Your task to perform on an android device: Show the shopping cart on target. Add usb-c to usb-a to the cart on target Image 0: 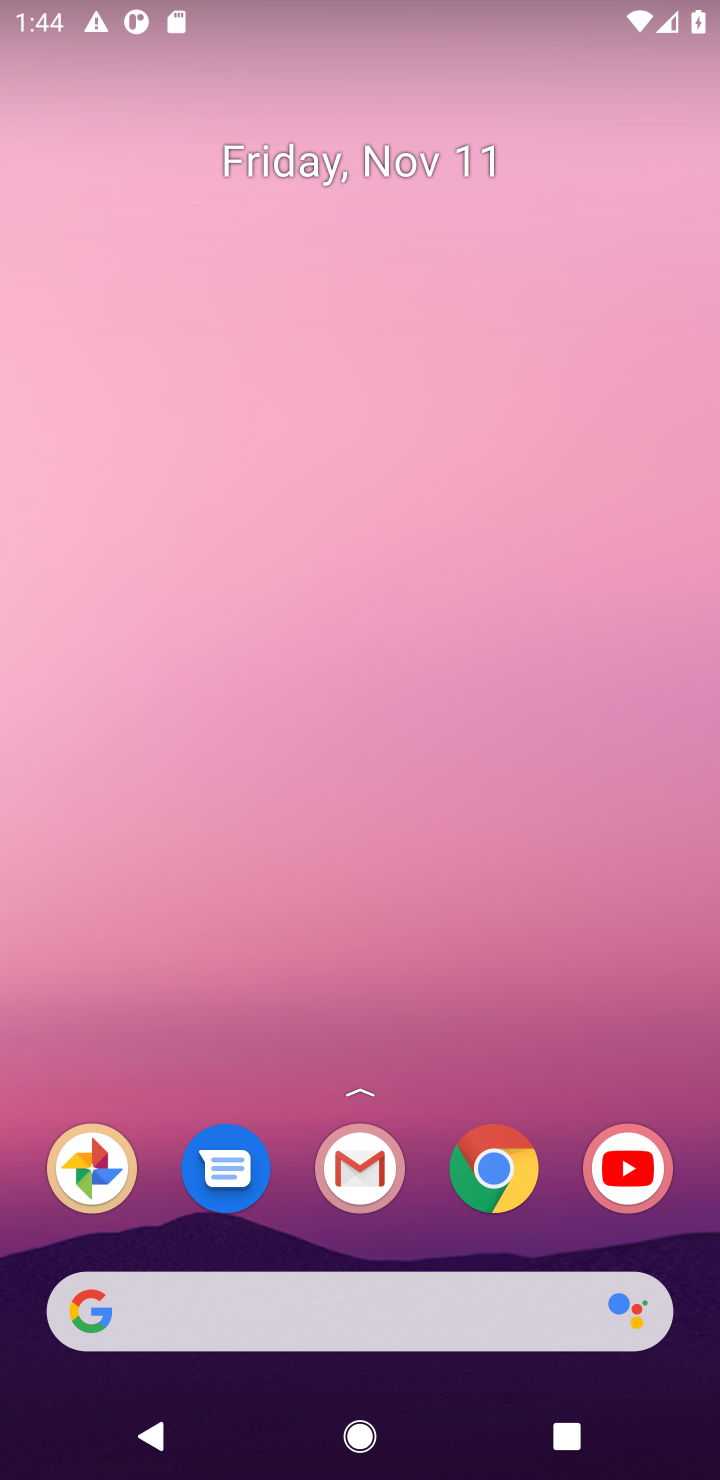
Step 0: click (486, 1165)
Your task to perform on an android device: Show the shopping cart on target. Add usb-c to usb-a to the cart on target Image 1: 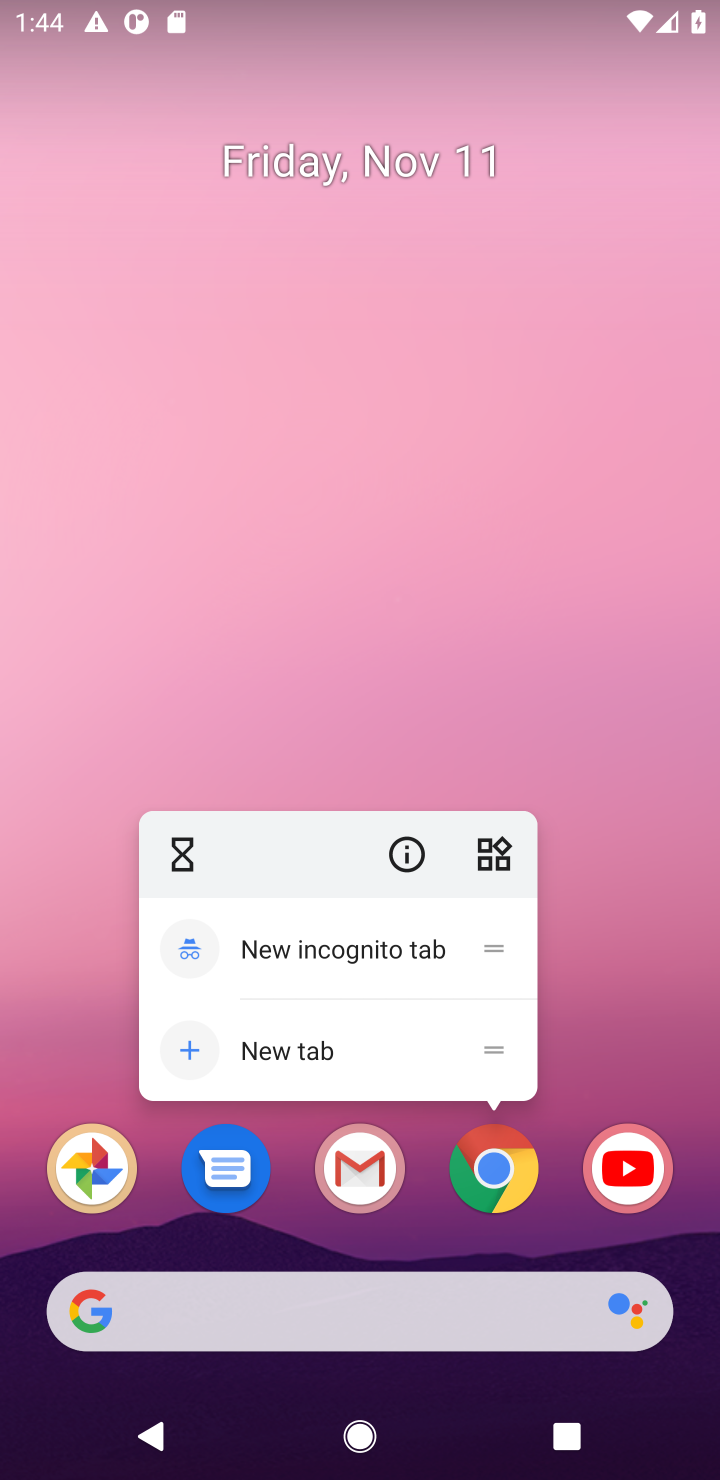
Step 1: click (488, 1168)
Your task to perform on an android device: Show the shopping cart on target. Add usb-c to usb-a to the cart on target Image 2: 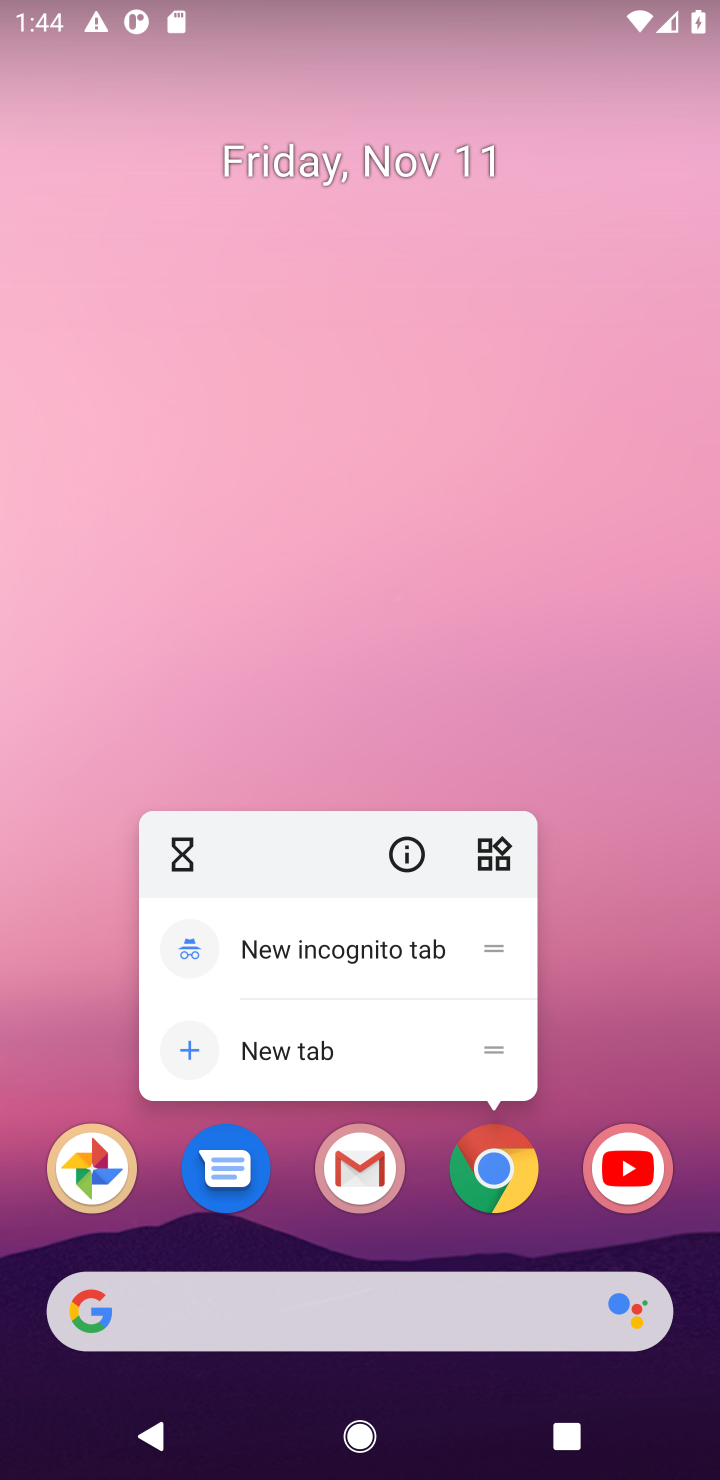
Step 2: click (501, 1174)
Your task to perform on an android device: Show the shopping cart on target. Add usb-c to usb-a to the cart on target Image 3: 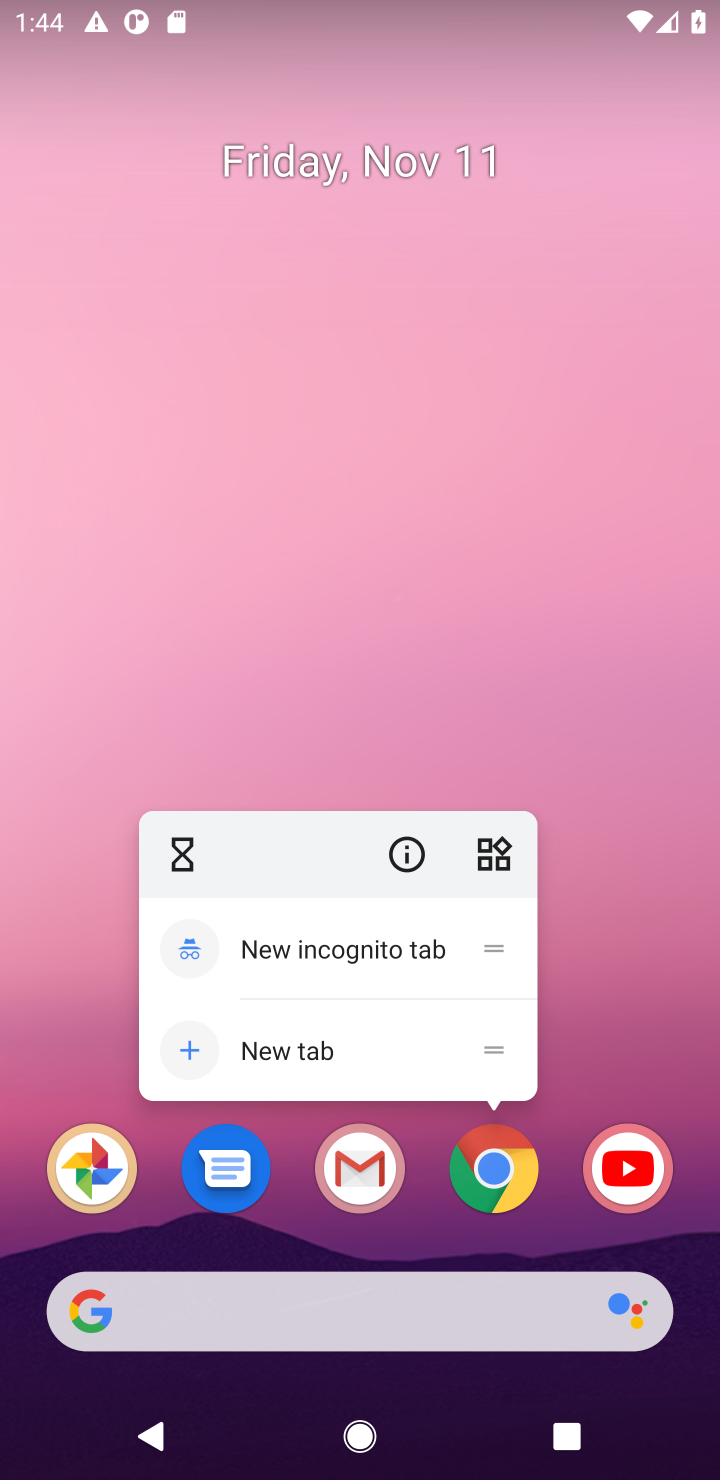
Step 3: click (501, 1174)
Your task to perform on an android device: Show the shopping cart on target. Add usb-c to usb-a to the cart on target Image 4: 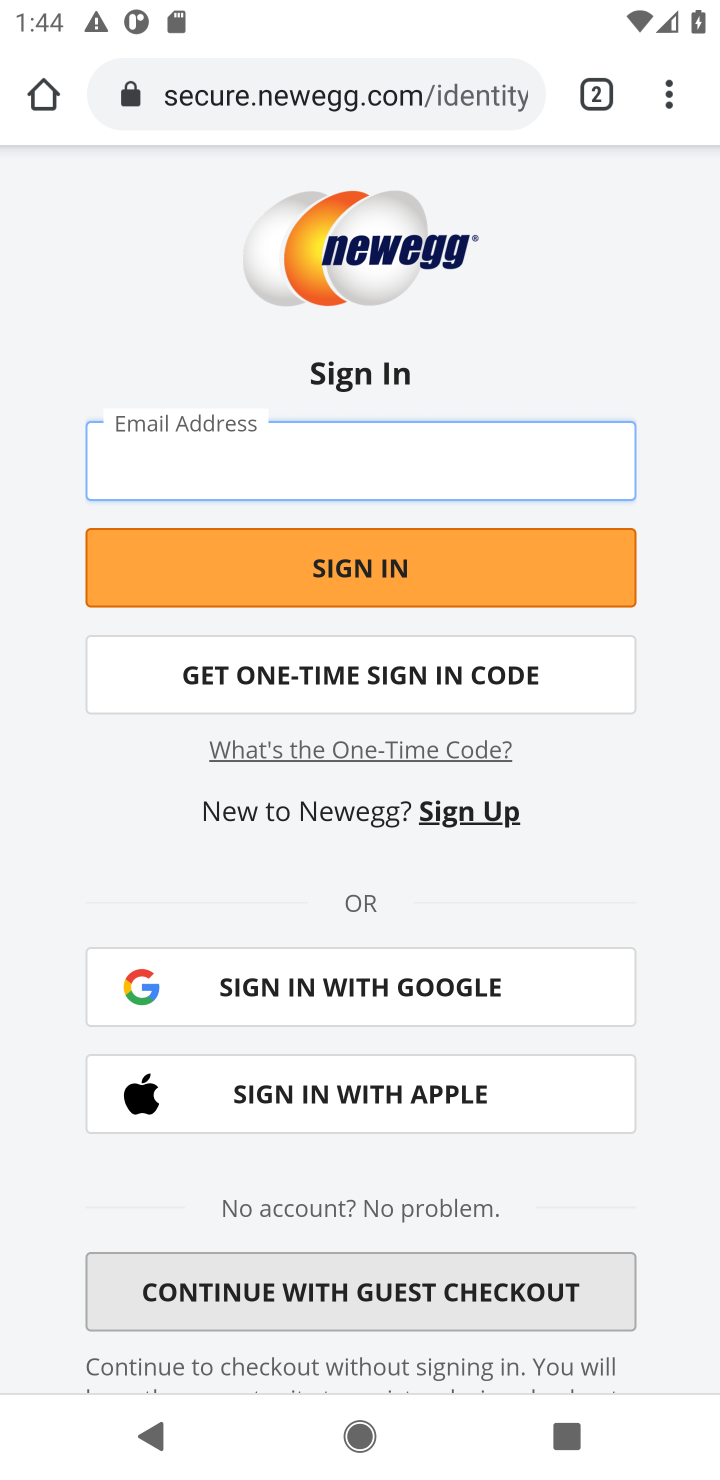
Step 4: click (303, 95)
Your task to perform on an android device: Show the shopping cart on target. Add usb-c to usb-a to the cart on target Image 5: 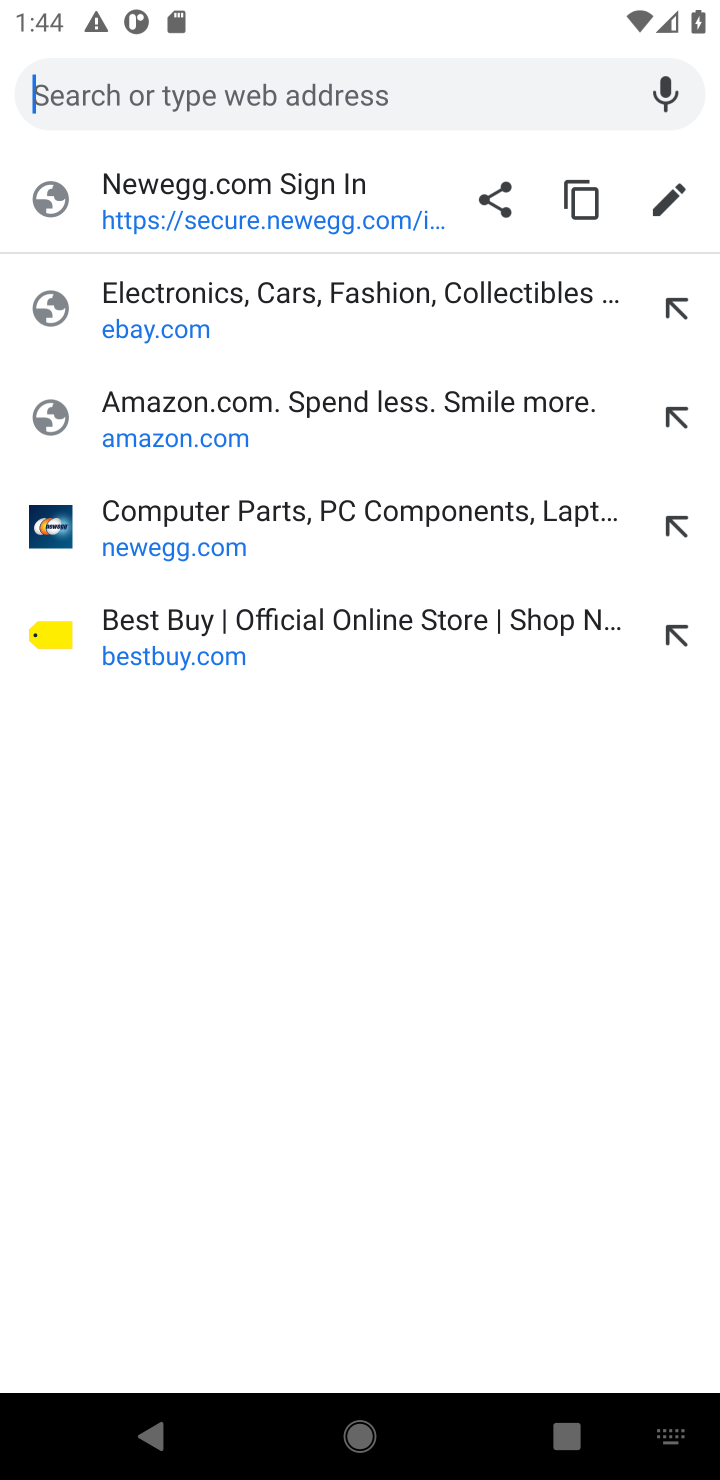
Step 5: type "target.com"
Your task to perform on an android device: Show the shopping cart on target. Add usb-c to usb-a to the cart on target Image 6: 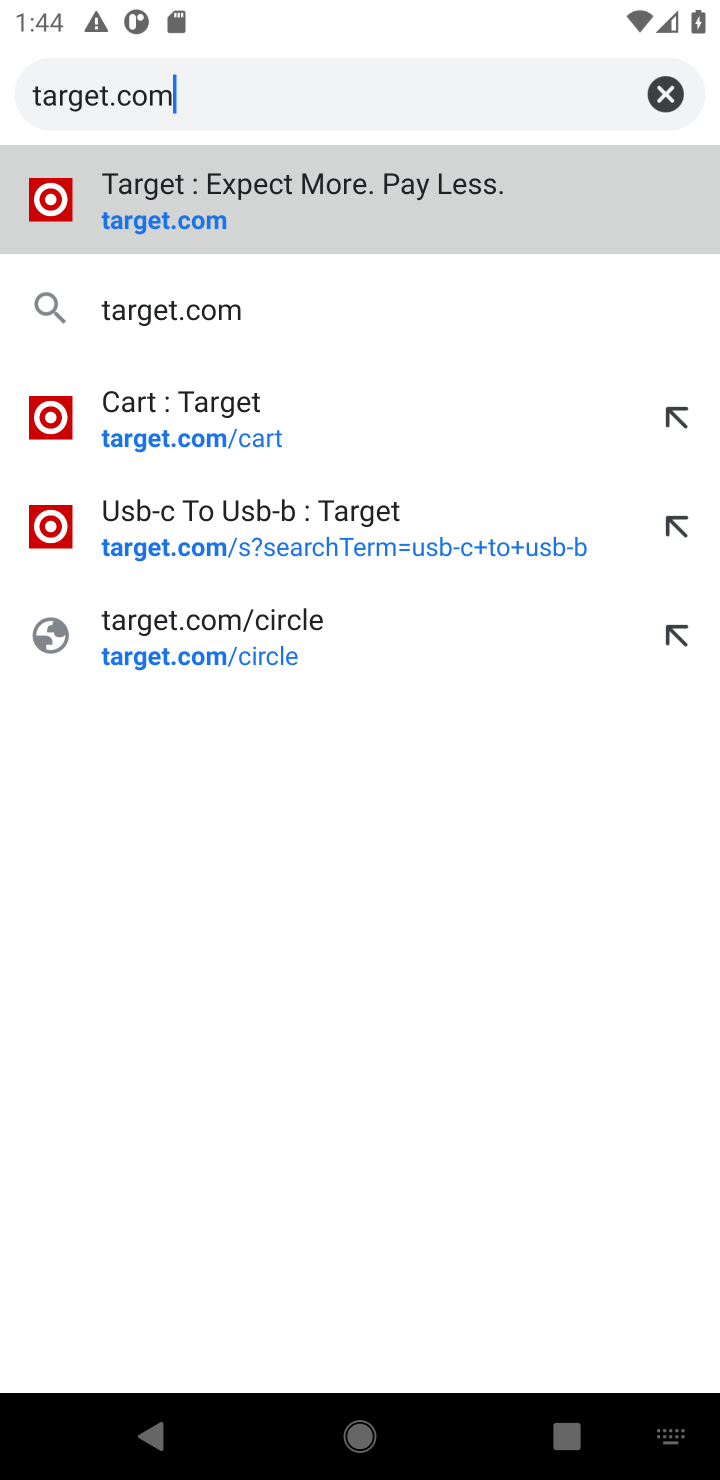
Step 6: click (132, 213)
Your task to perform on an android device: Show the shopping cart on target. Add usb-c to usb-a to the cart on target Image 7: 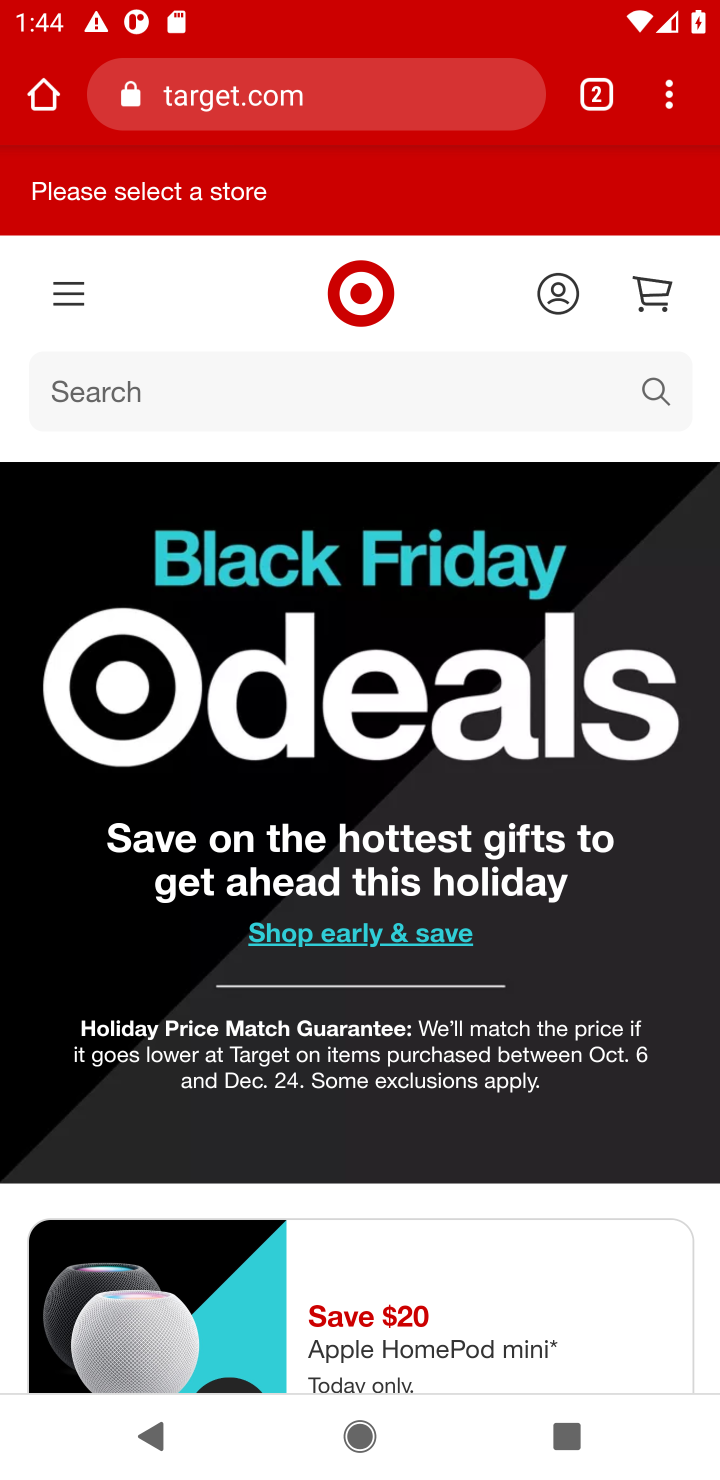
Step 7: click (661, 302)
Your task to perform on an android device: Show the shopping cart on target. Add usb-c to usb-a to the cart on target Image 8: 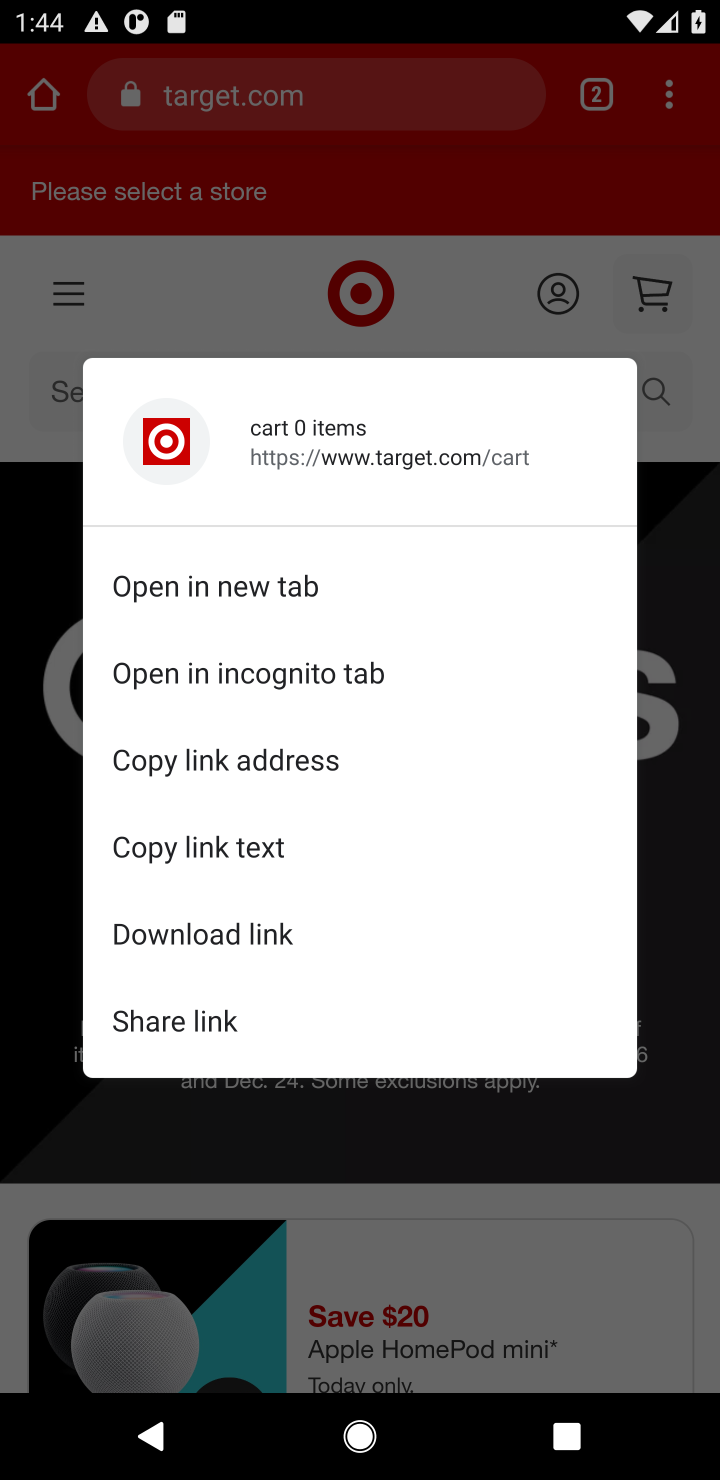
Step 8: click (661, 302)
Your task to perform on an android device: Show the shopping cart on target. Add usb-c to usb-a to the cart on target Image 9: 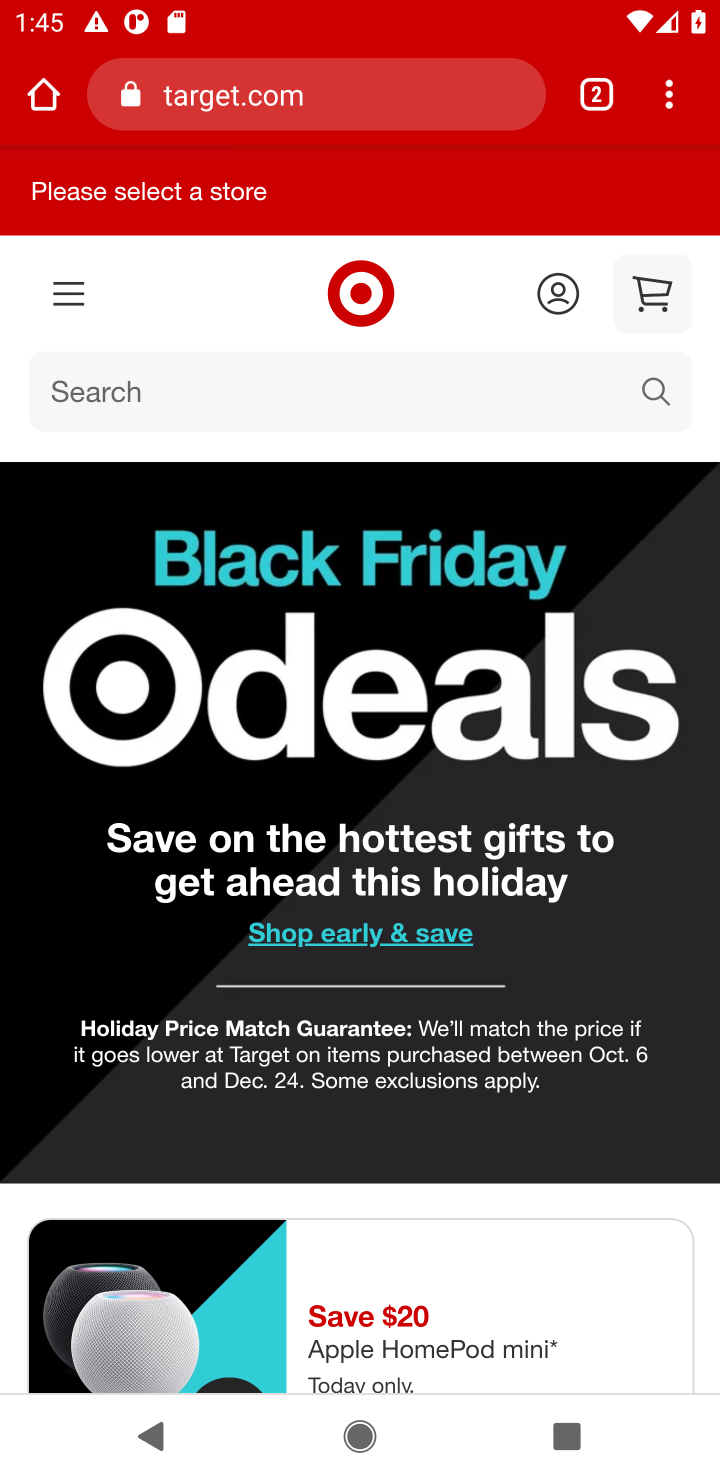
Step 9: click (661, 302)
Your task to perform on an android device: Show the shopping cart on target. Add usb-c to usb-a to the cart on target Image 10: 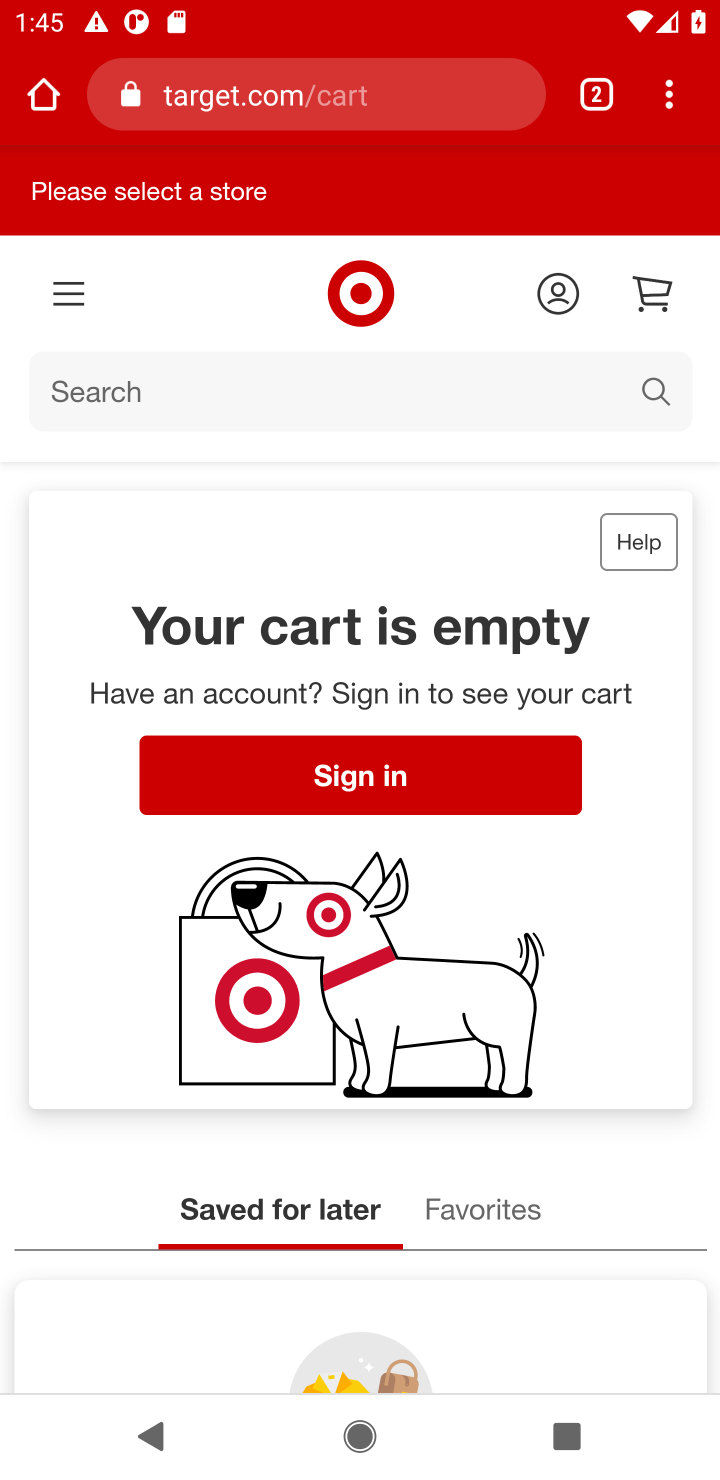
Step 10: click (659, 397)
Your task to perform on an android device: Show the shopping cart on target. Add usb-c to usb-a to the cart on target Image 11: 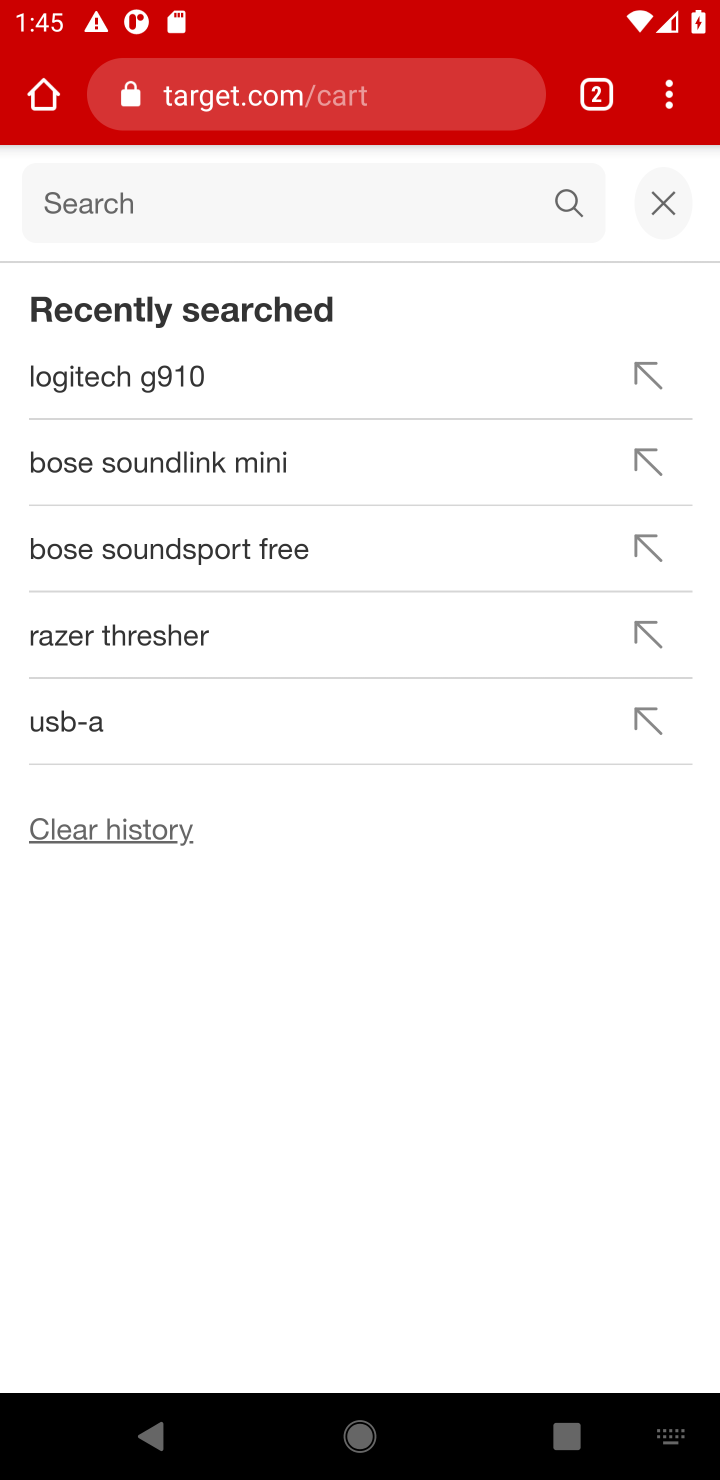
Step 11: type "usb-c to usb-a"
Your task to perform on an android device: Show the shopping cart on target. Add usb-c to usb-a to the cart on target Image 12: 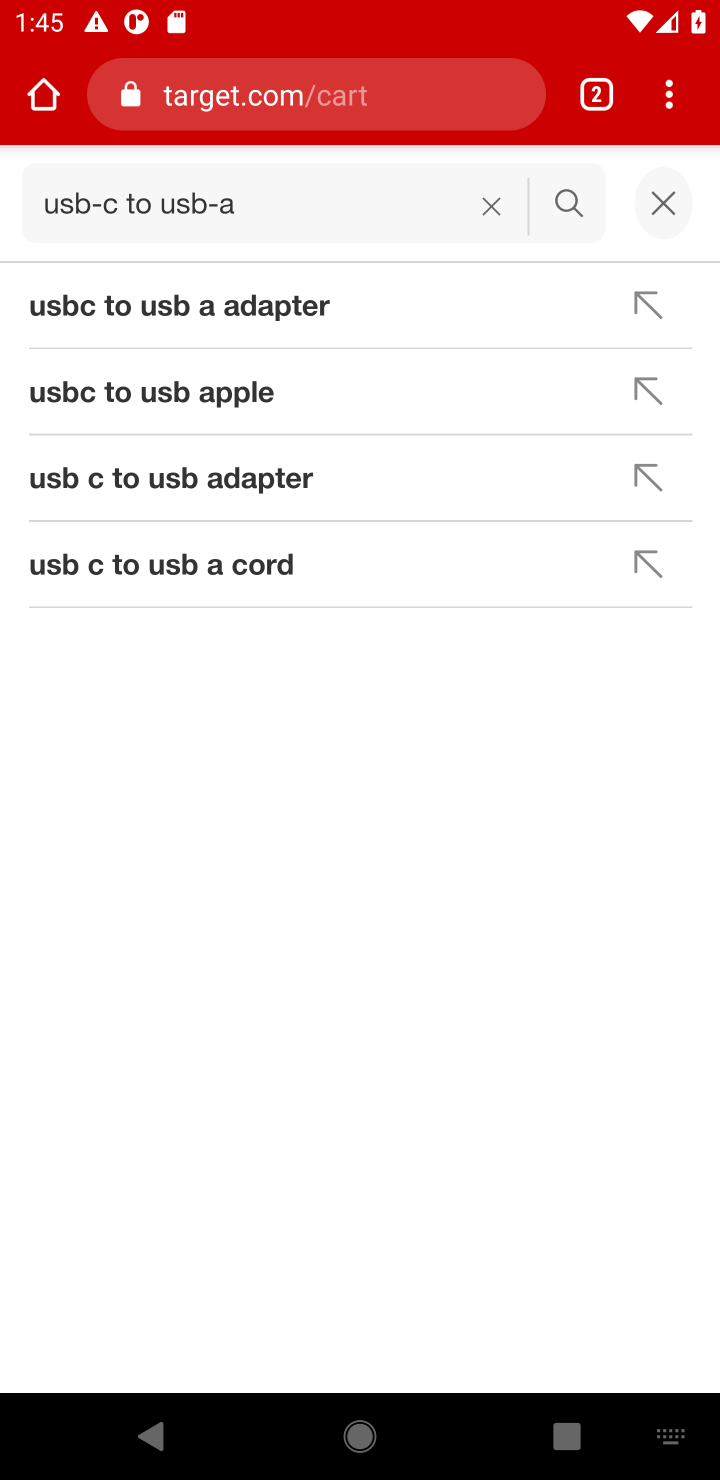
Step 12: click (570, 197)
Your task to perform on an android device: Show the shopping cart on target. Add usb-c to usb-a to the cart on target Image 13: 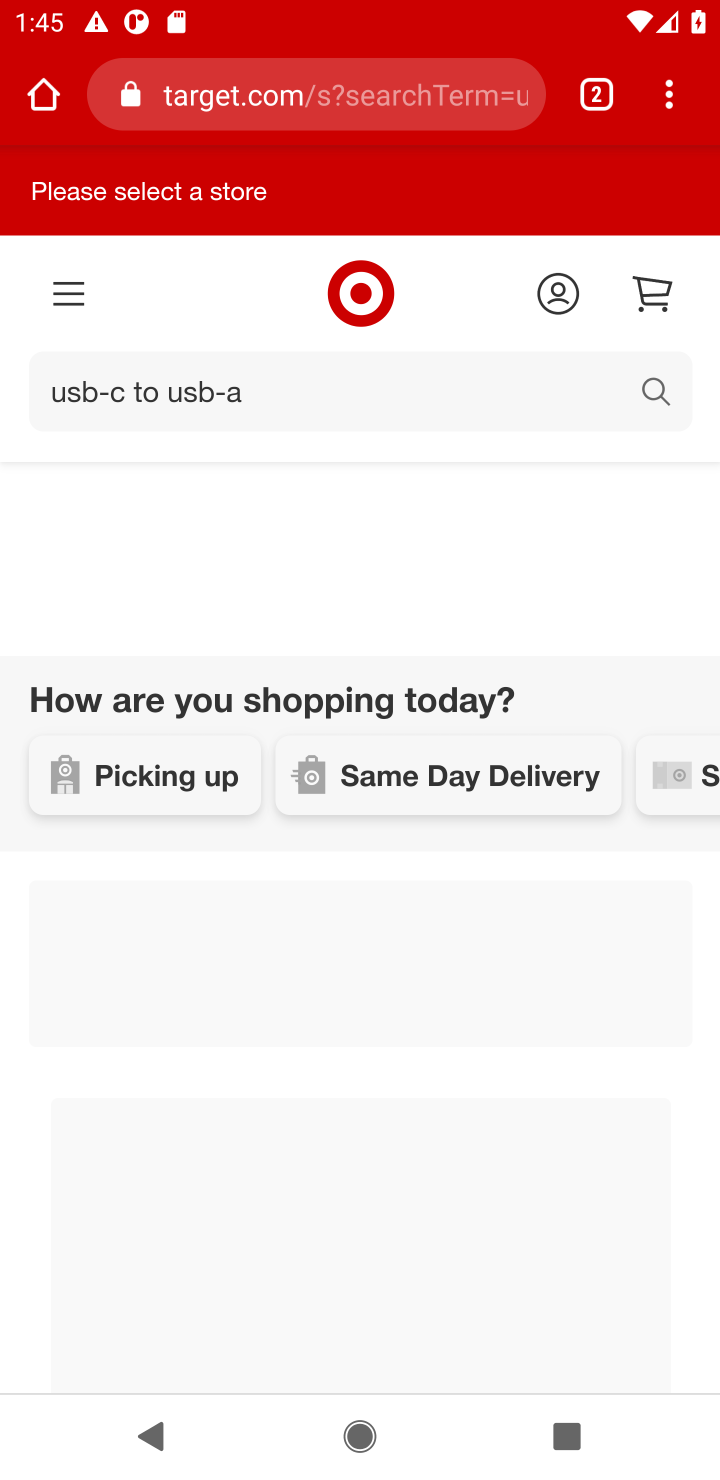
Step 13: drag from (308, 1021) to (341, 517)
Your task to perform on an android device: Show the shopping cart on target. Add usb-c to usb-a to the cart on target Image 14: 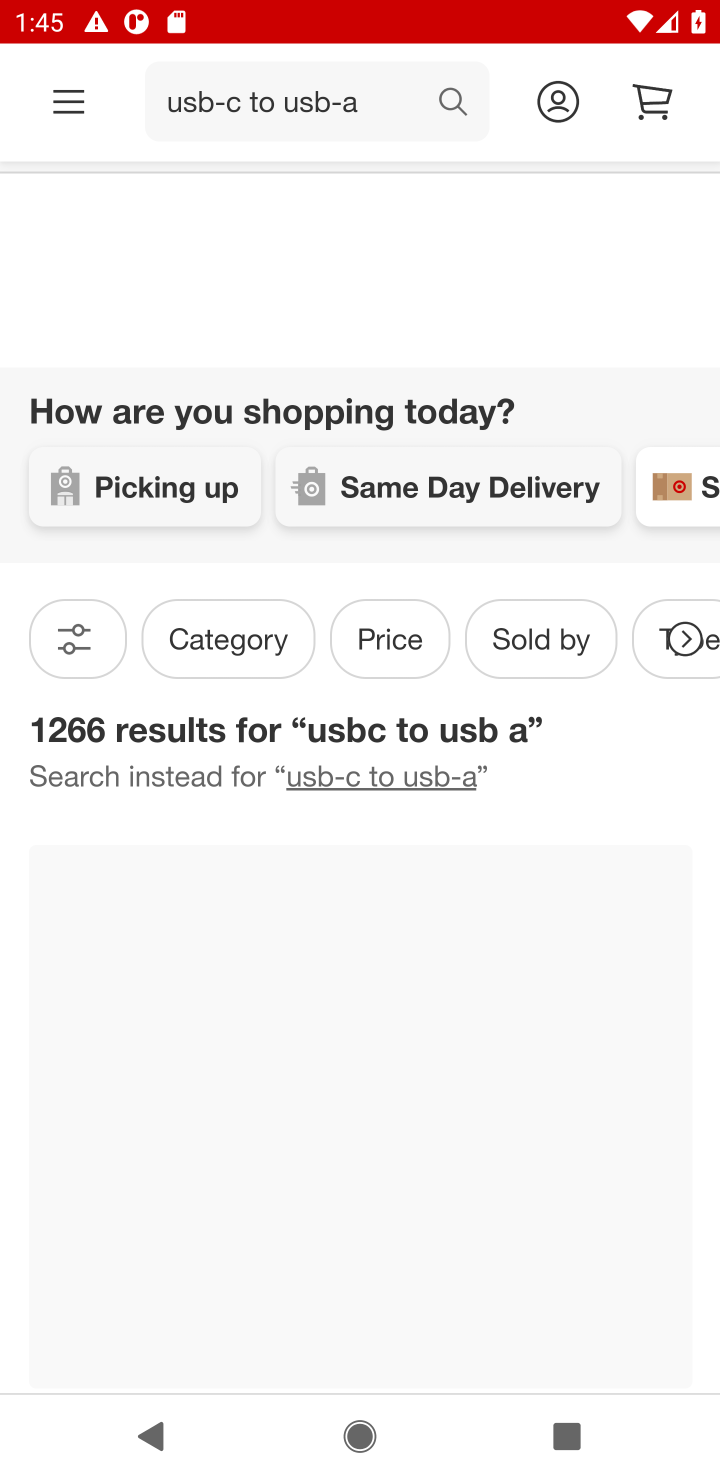
Step 14: drag from (405, 1069) to (346, 608)
Your task to perform on an android device: Show the shopping cart on target. Add usb-c to usb-a to the cart on target Image 15: 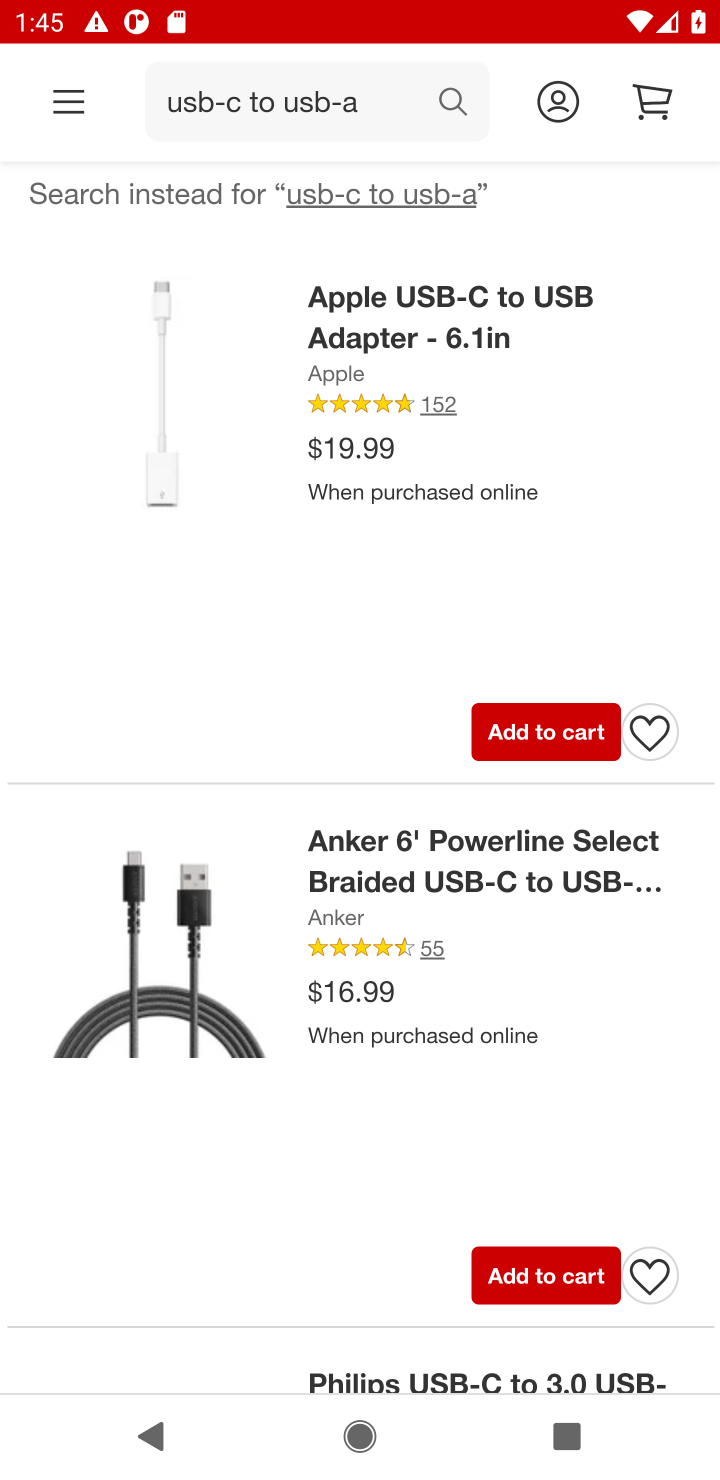
Step 15: click (173, 981)
Your task to perform on an android device: Show the shopping cart on target. Add usb-c to usb-a to the cart on target Image 16: 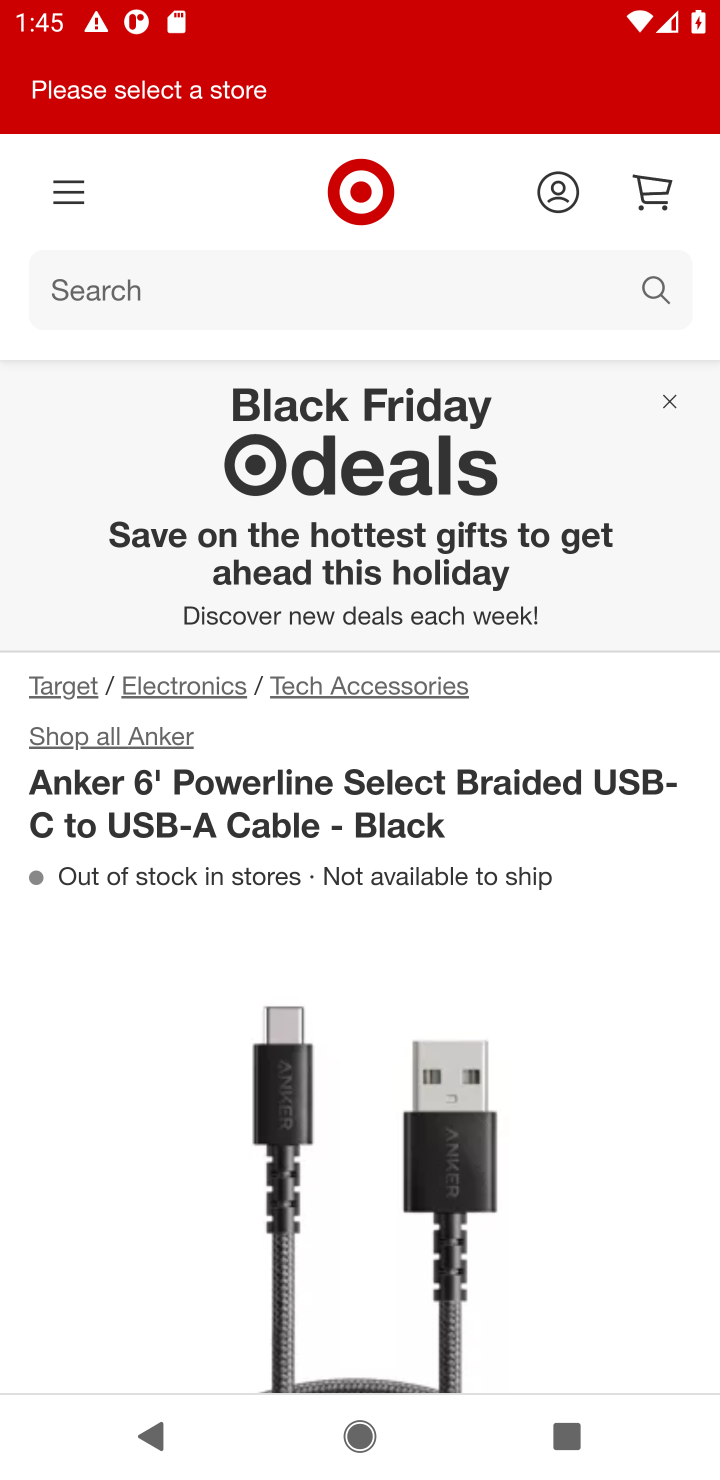
Step 16: drag from (363, 1218) to (279, 617)
Your task to perform on an android device: Show the shopping cart on target. Add usb-c to usb-a to the cart on target Image 17: 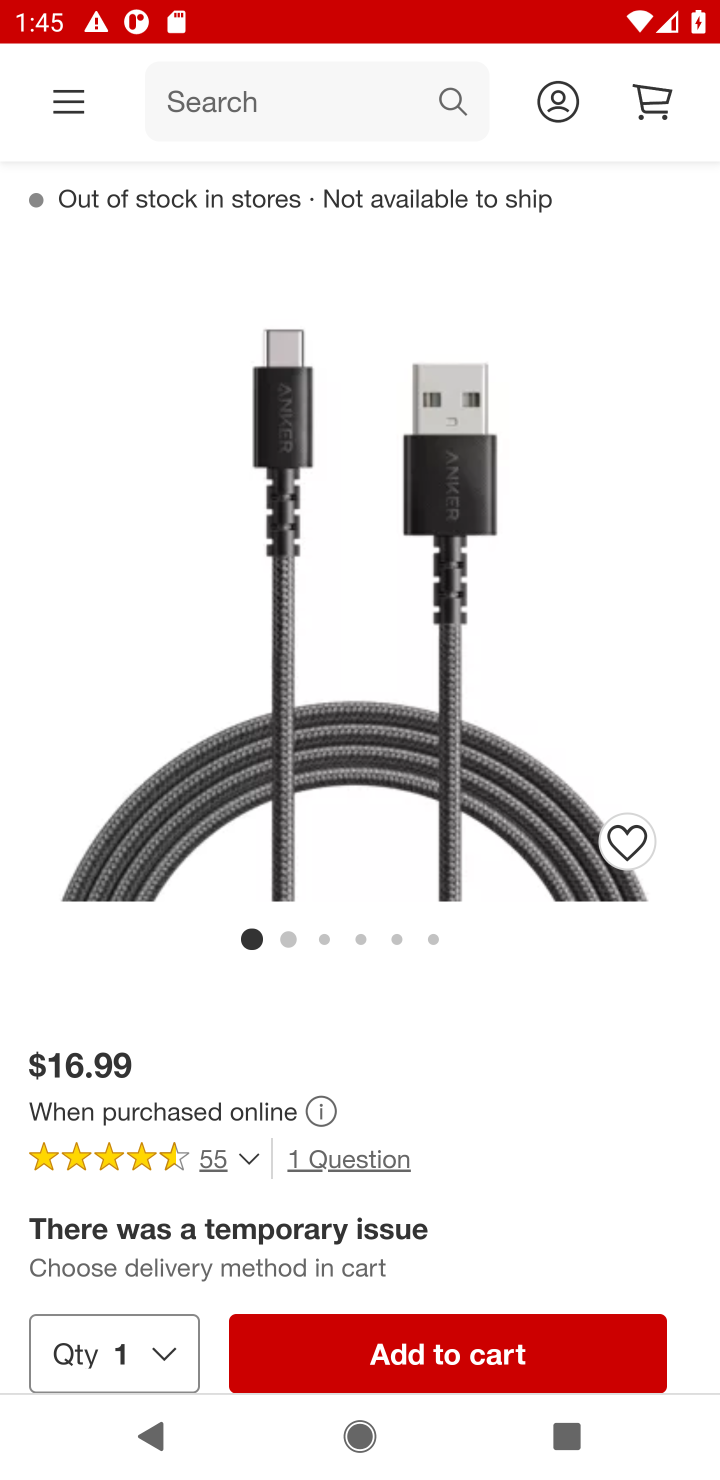
Step 17: click (429, 1357)
Your task to perform on an android device: Show the shopping cart on target. Add usb-c to usb-a to the cart on target Image 18: 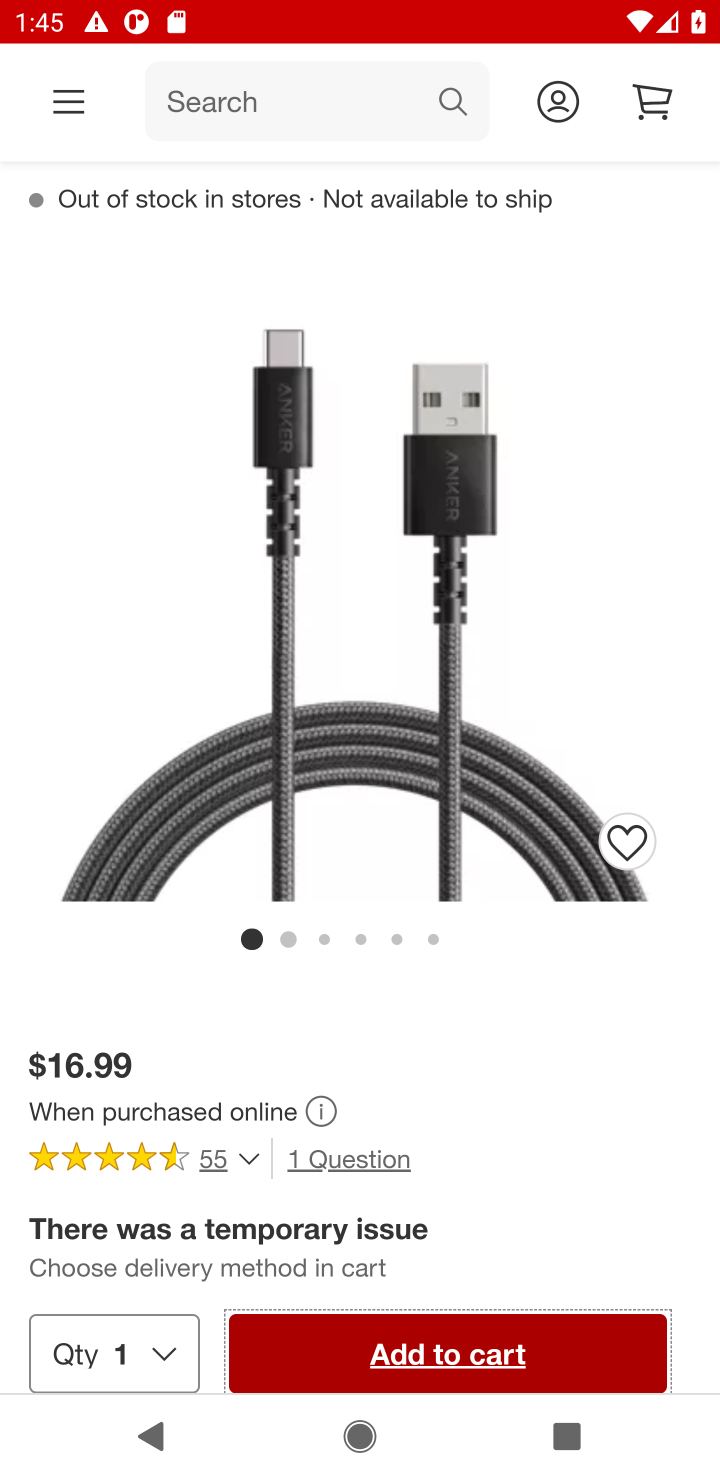
Step 18: click (409, 1352)
Your task to perform on an android device: Show the shopping cart on target. Add usb-c to usb-a to the cart on target Image 19: 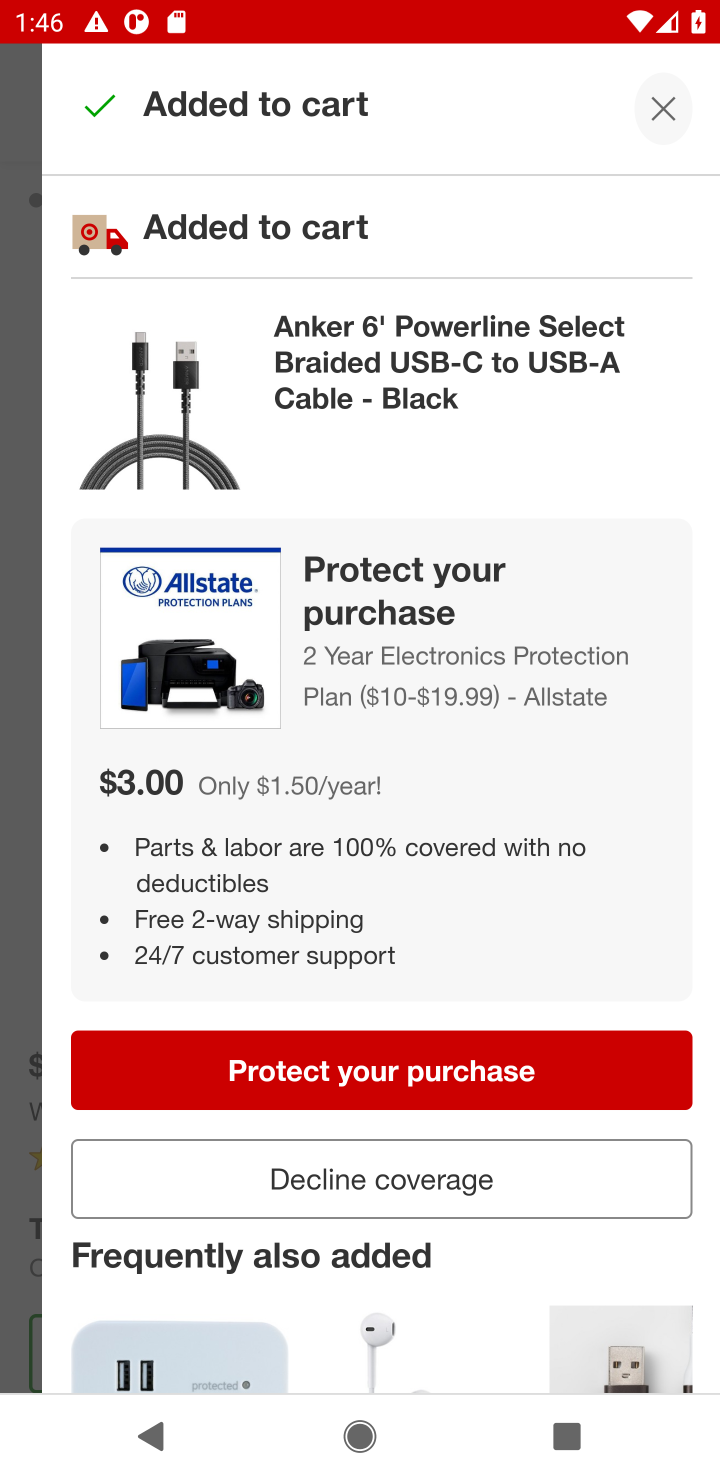
Step 19: task complete